Your task to perform on an android device: Open the Play Movies app and select the watchlist tab. Image 0: 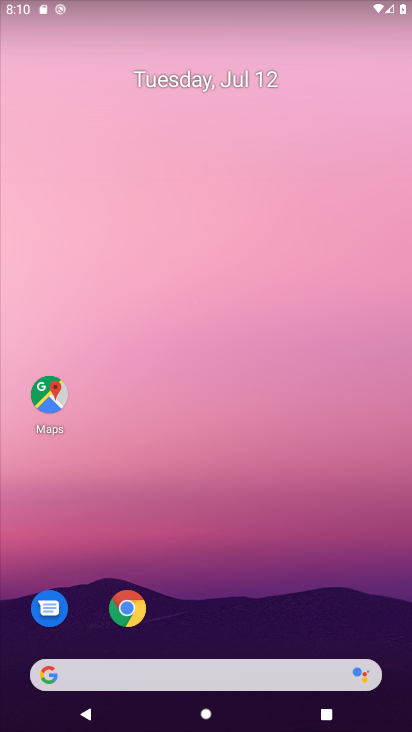
Step 0: drag from (156, 674) to (344, 172)
Your task to perform on an android device: Open the Play Movies app and select the watchlist tab. Image 1: 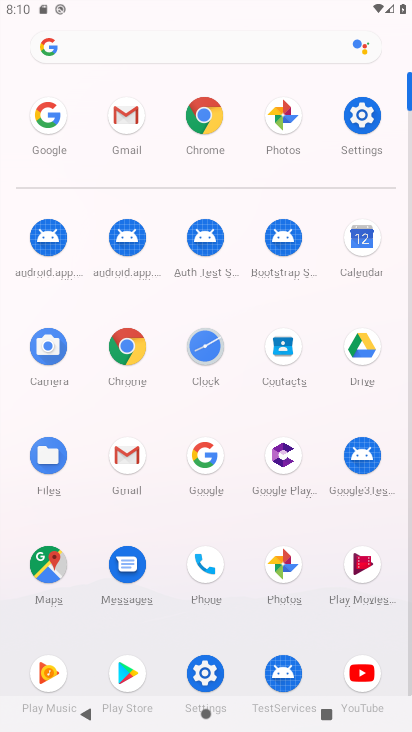
Step 1: click (366, 573)
Your task to perform on an android device: Open the Play Movies app and select the watchlist tab. Image 2: 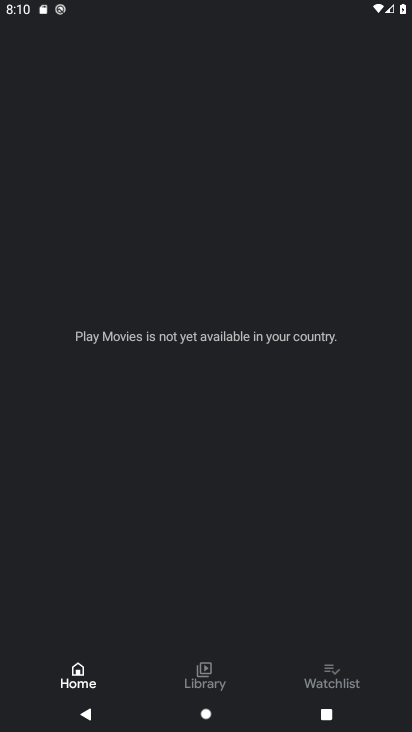
Step 2: click (342, 690)
Your task to perform on an android device: Open the Play Movies app and select the watchlist tab. Image 3: 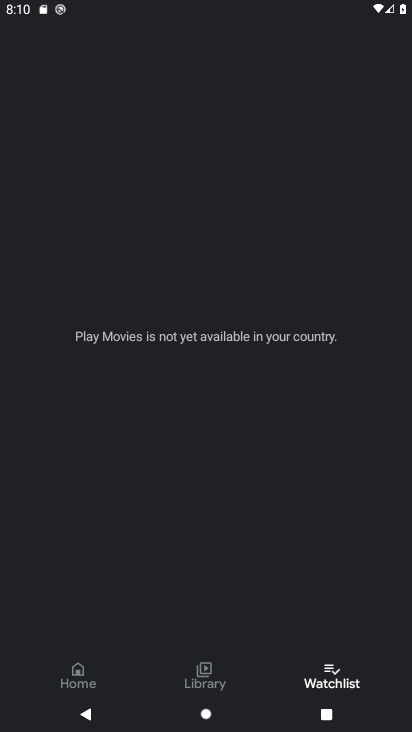
Step 3: task complete